Your task to perform on an android device: Go to internet settings Image 0: 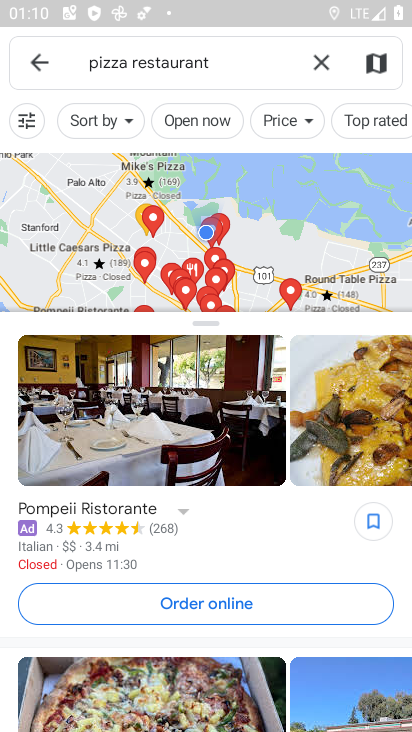
Step 0: press home button
Your task to perform on an android device: Go to internet settings Image 1: 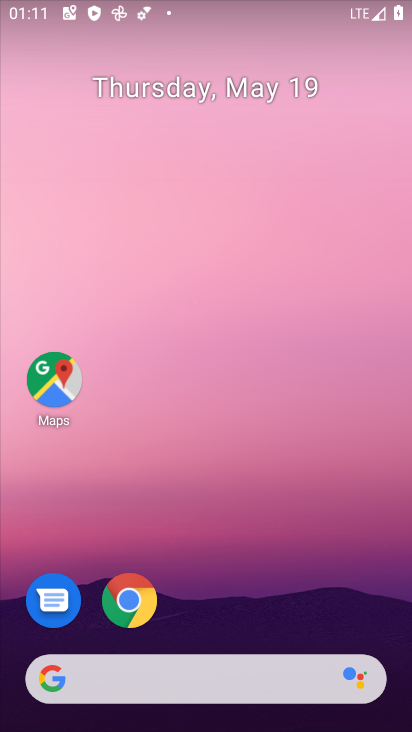
Step 1: drag from (217, 519) to (152, 42)
Your task to perform on an android device: Go to internet settings Image 2: 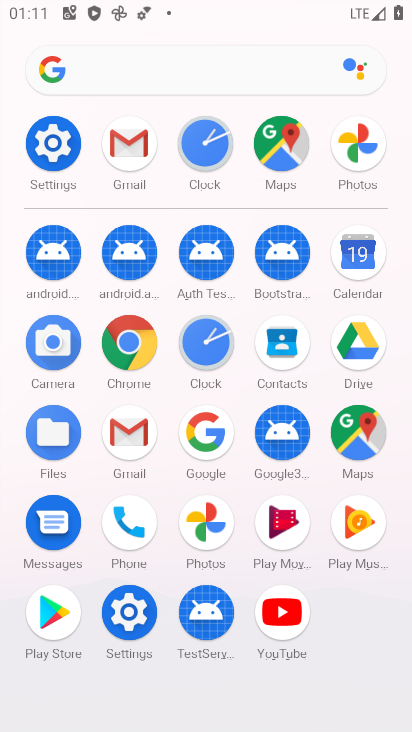
Step 2: click (128, 622)
Your task to perform on an android device: Go to internet settings Image 3: 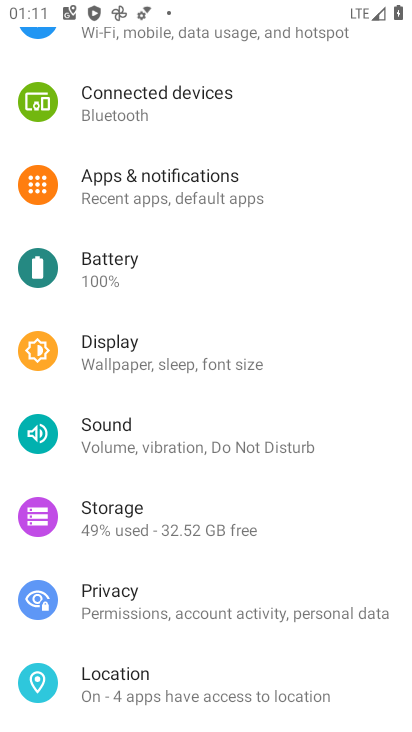
Step 3: drag from (263, 127) to (103, 506)
Your task to perform on an android device: Go to internet settings Image 4: 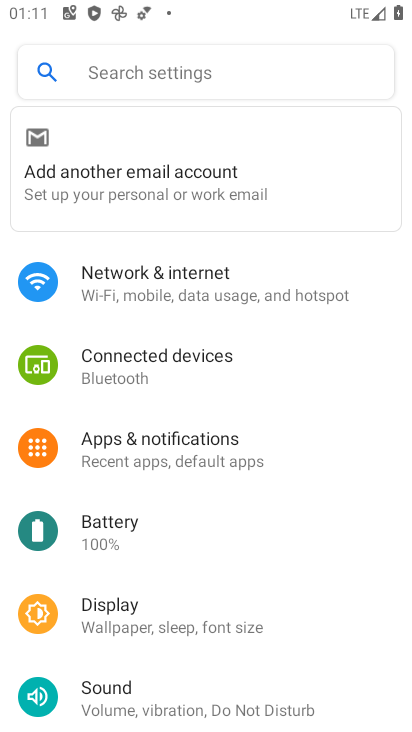
Step 4: click (176, 275)
Your task to perform on an android device: Go to internet settings Image 5: 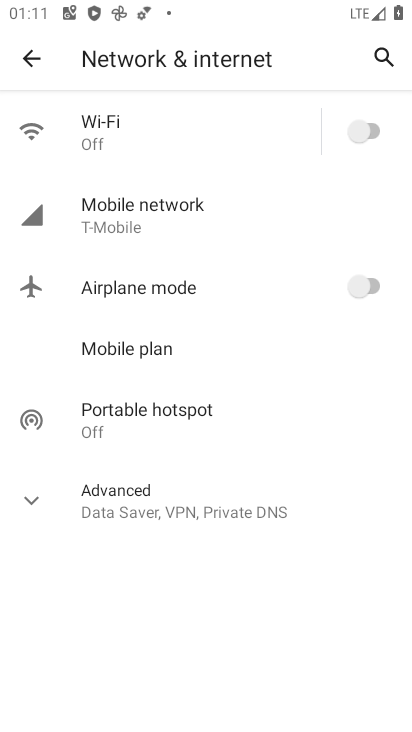
Step 5: click (140, 200)
Your task to perform on an android device: Go to internet settings Image 6: 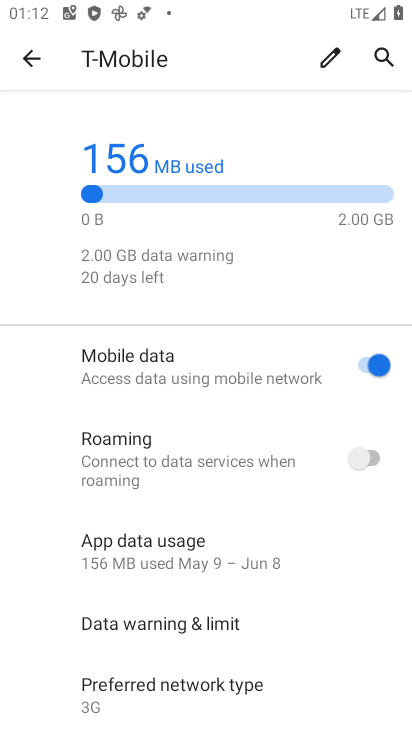
Step 6: task complete